Your task to perform on an android device: toggle priority inbox in the gmail app Image 0: 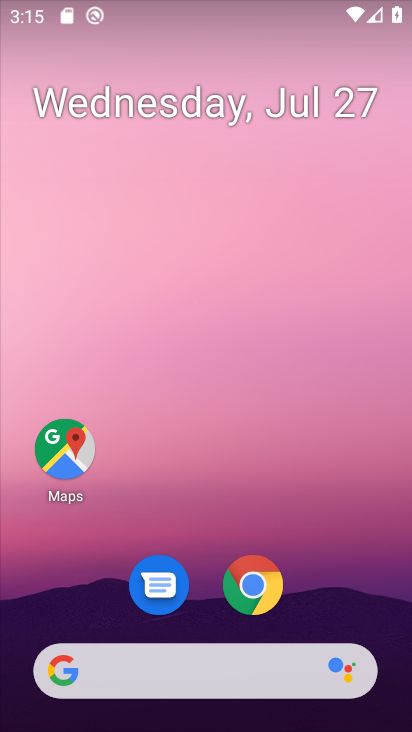
Step 0: drag from (238, 492) to (203, 10)
Your task to perform on an android device: toggle priority inbox in the gmail app Image 1: 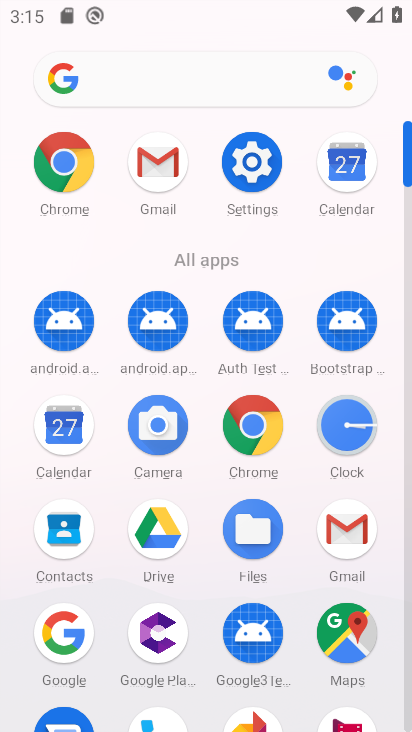
Step 1: click (159, 170)
Your task to perform on an android device: toggle priority inbox in the gmail app Image 2: 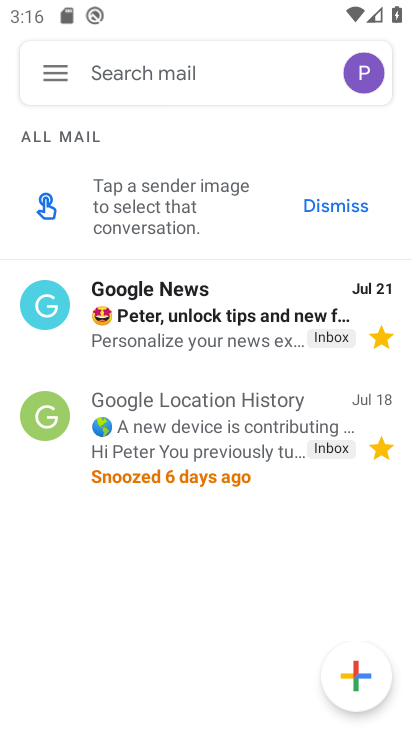
Step 2: click (56, 76)
Your task to perform on an android device: toggle priority inbox in the gmail app Image 3: 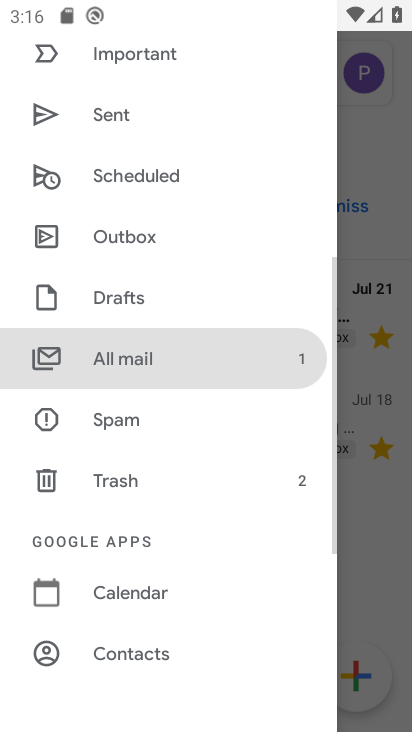
Step 3: drag from (173, 578) to (142, 206)
Your task to perform on an android device: toggle priority inbox in the gmail app Image 4: 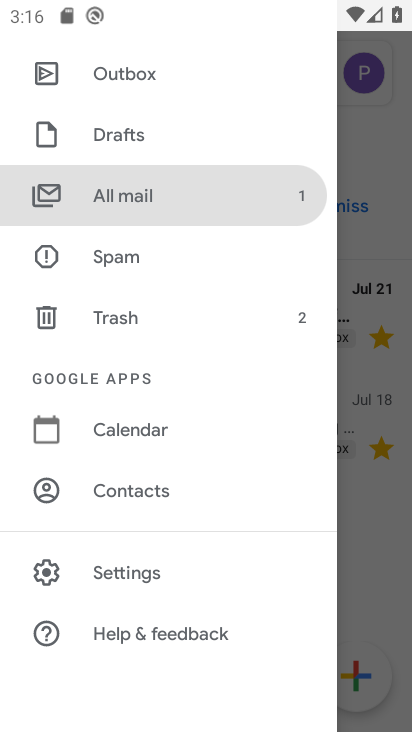
Step 4: click (158, 564)
Your task to perform on an android device: toggle priority inbox in the gmail app Image 5: 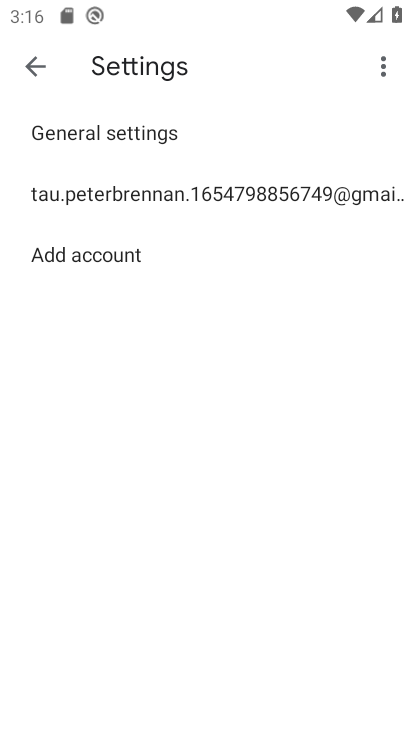
Step 5: click (170, 201)
Your task to perform on an android device: toggle priority inbox in the gmail app Image 6: 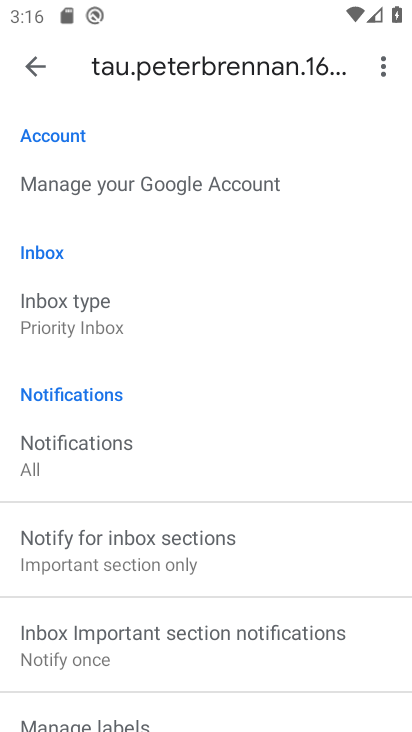
Step 6: click (97, 304)
Your task to perform on an android device: toggle priority inbox in the gmail app Image 7: 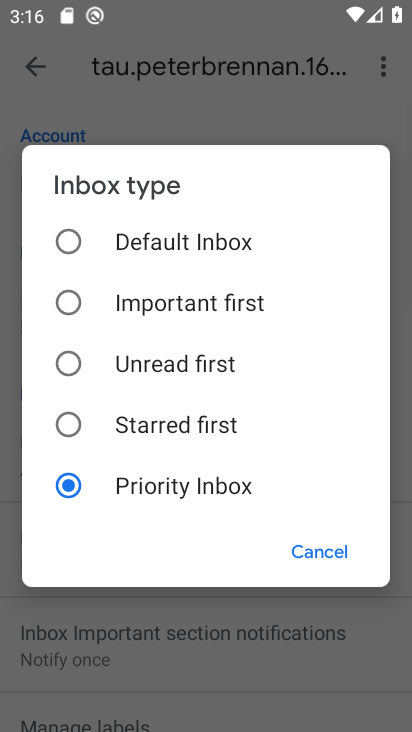
Step 7: click (63, 235)
Your task to perform on an android device: toggle priority inbox in the gmail app Image 8: 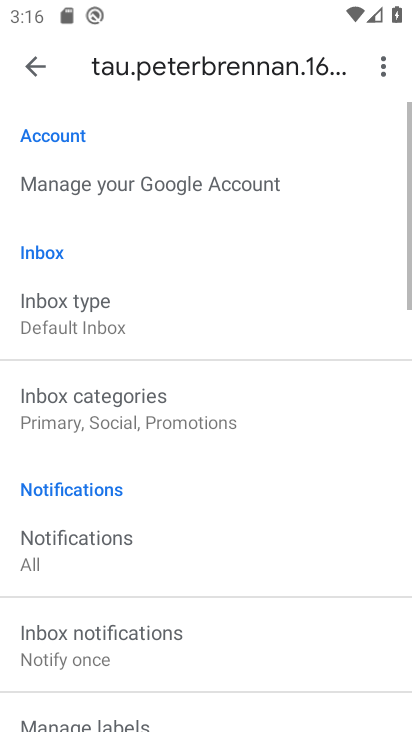
Step 8: task complete